Your task to perform on an android device: Go to battery settings Image 0: 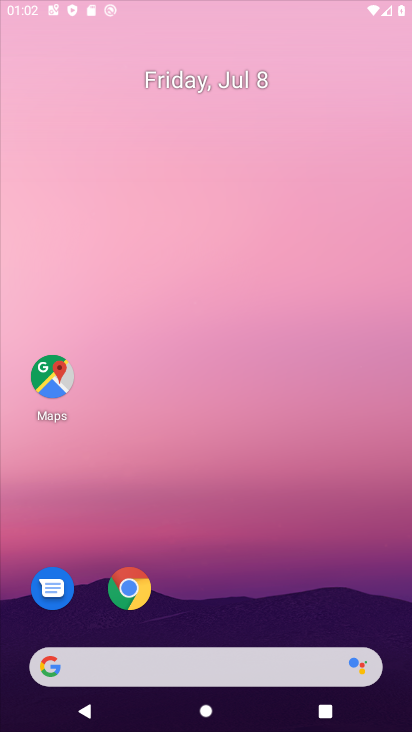
Step 0: drag from (237, 662) to (345, 38)
Your task to perform on an android device: Go to battery settings Image 1: 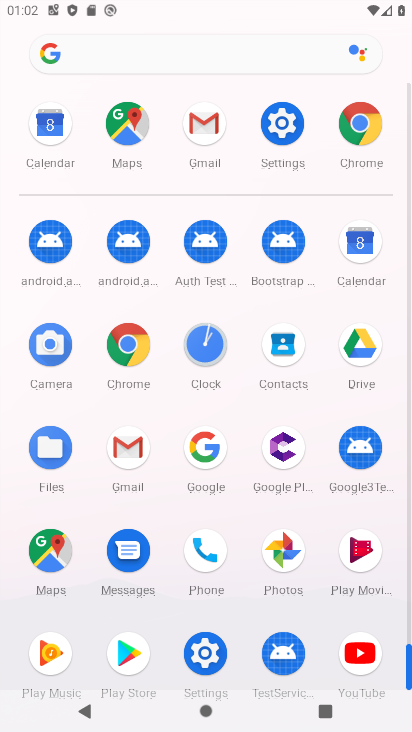
Step 1: click (209, 631)
Your task to perform on an android device: Go to battery settings Image 2: 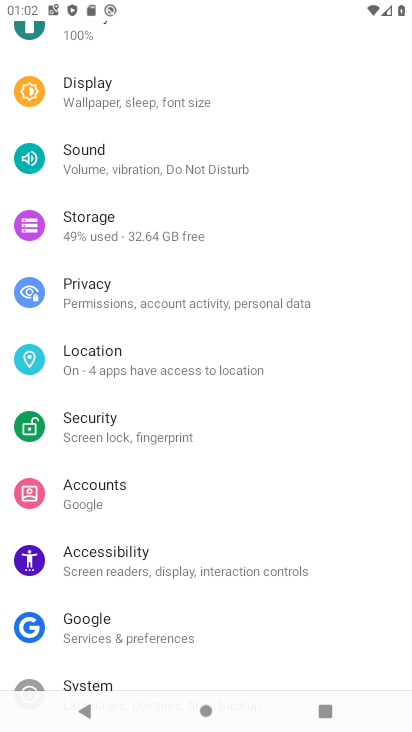
Step 2: drag from (119, 122) to (211, 621)
Your task to perform on an android device: Go to battery settings Image 3: 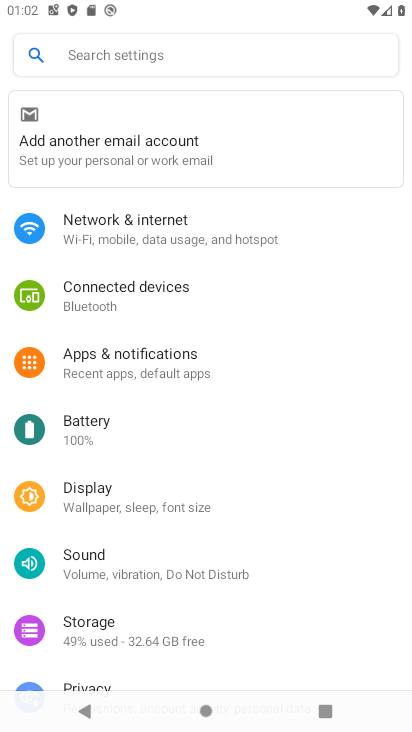
Step 3: click (116, 437)
Your task to perform on an android device: Go to battery settings Image 4: 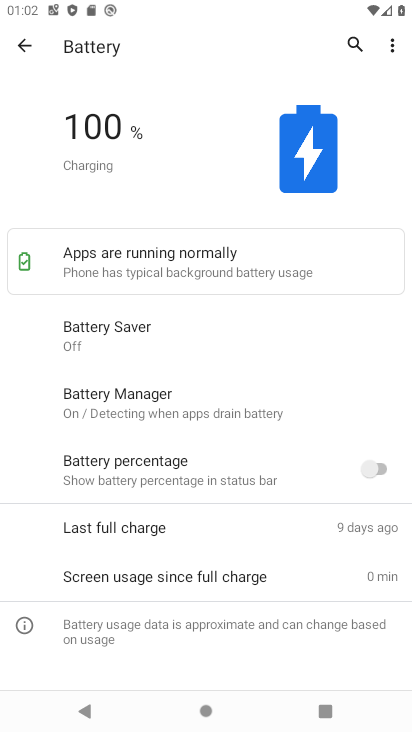
Step 4: click (80, 416)
Your task to perform on an android device: Go to battery settings Image 5: 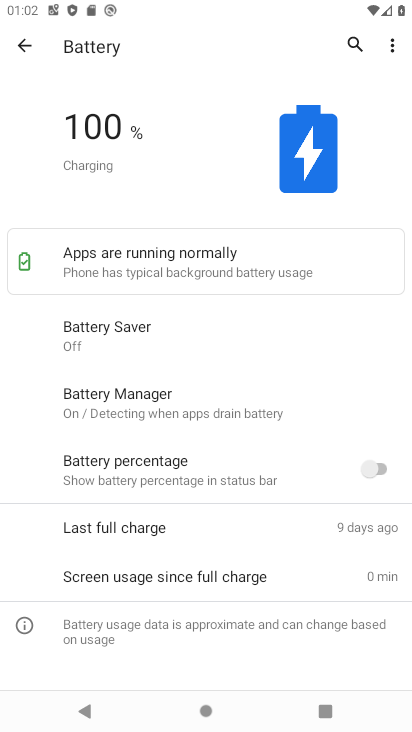
Step 5: drag from (80, 416) to (145, 7)
Your task to perform on an android device: Go to battery settings Image 6: 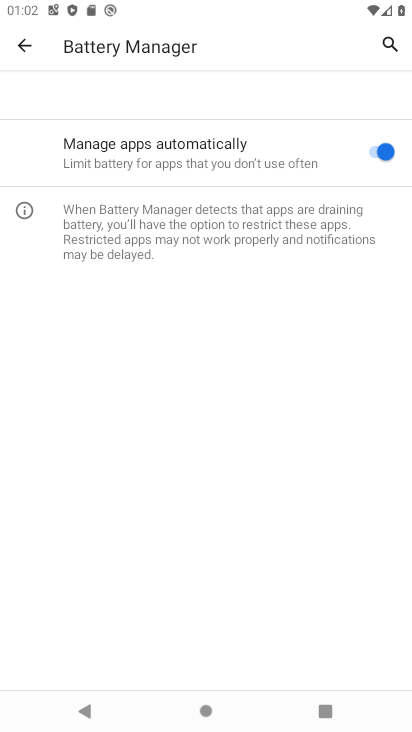
Step 6: click (28, 40)
Your task to perform on an android device: Go to battery settings Image 7: 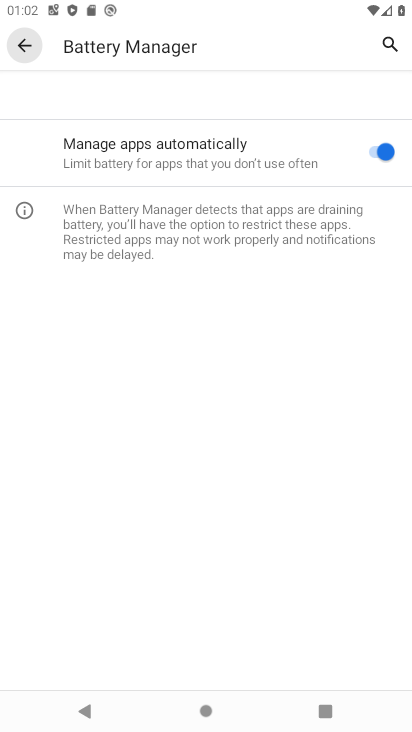
Step 7: task complete